Your task to perform on an android device: create a new album in the google photos Image 0: 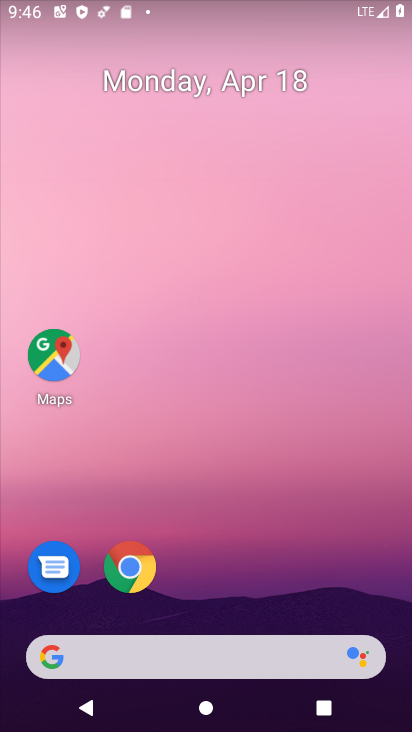
Step 0: drag from (334, 581) to (385, 137)
Your task to perform on an android device: create a new album in the google photos Image 1: 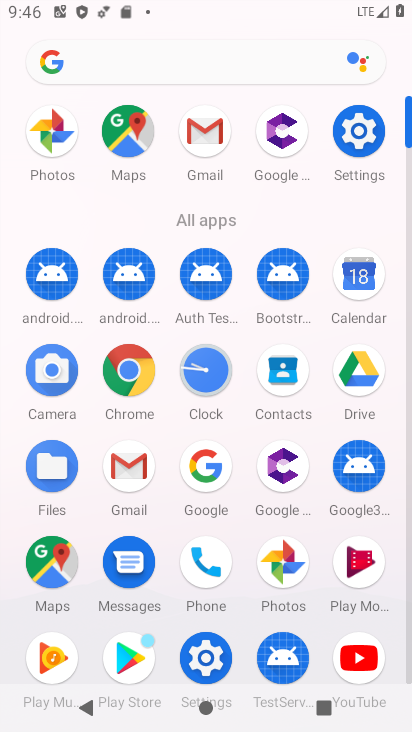
Step 1: click (276, 574)
Your task to perform on an android device: create a new album in the google photos Image 2: 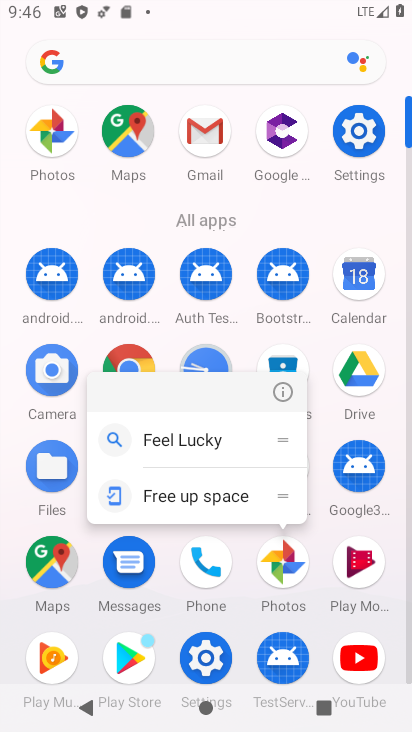
Step 2: click (277, 569)
Your task to perform on an android device: create a new album in the google photos Image 3: 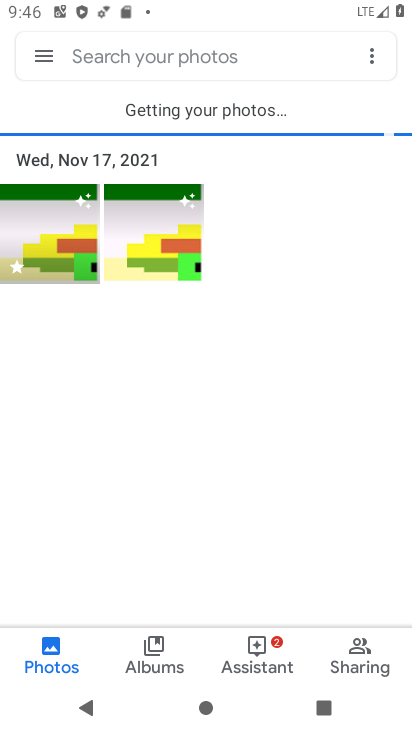
Step 3: click (160, 641)
Your task to perform on an android device: create a new album in the google photos Image 4: 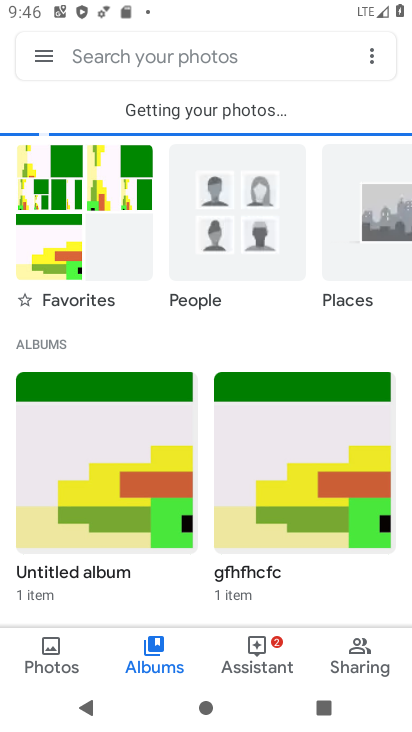
Step 4: task complete